Your task to perform on an android device: Open Google Maps and go to "Timeline" Image 0: 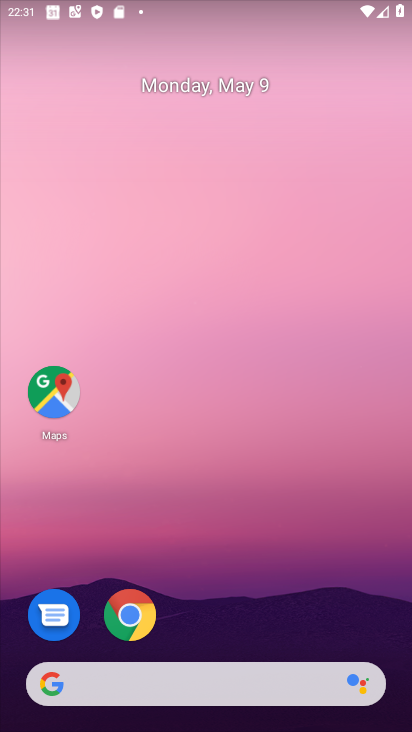
Step 0: click (51, 392)
Your task to perform on an android device: Open Google Maps and go to "Timeline" Image 1: 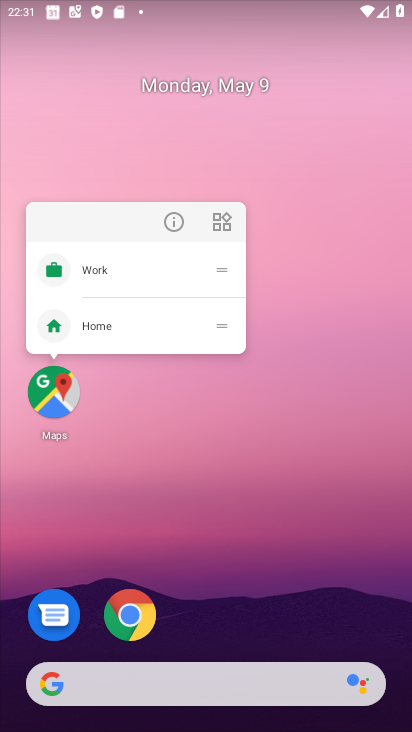
Step 1: click (54, 393)
Your task to perform on an android device: Open Google Maps and go to "Timeline" Image 2: 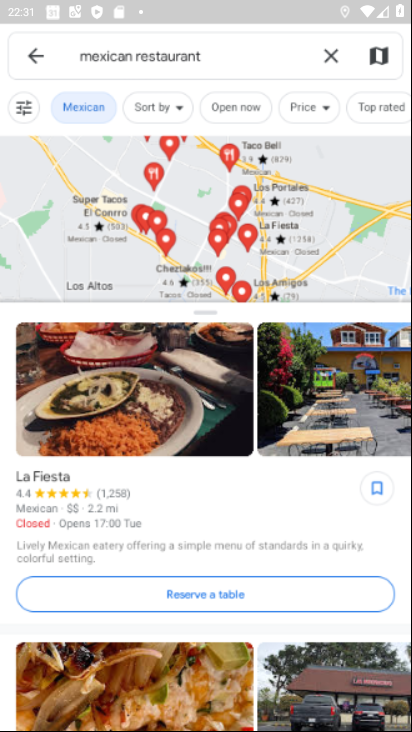
Step 2: click (40, 57)
Your task to perform on an android device: Open Google Maps and go to "Timeline" Image 3: 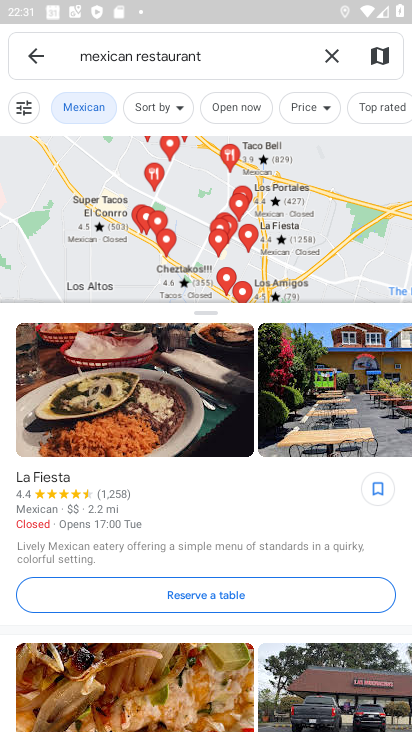
Step 3: click (331, 60)
Your task to perform on an android device: Open Google Maps and go to "Timeline" Image 4: 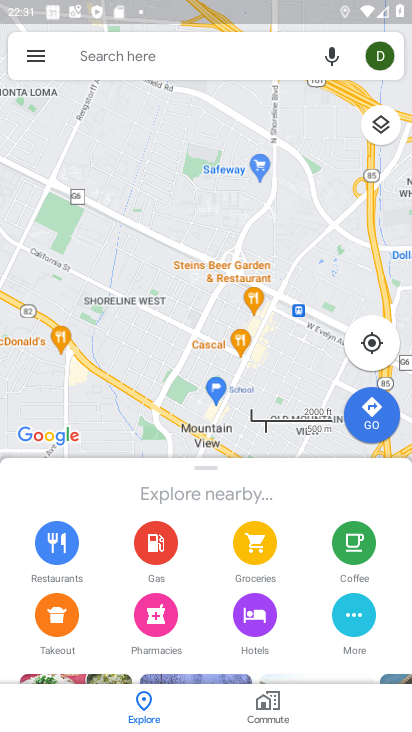
Step 4: click (39, 57)
Your task to perform on an android device: Open Google Maps and go to "Timeline" Image 5: 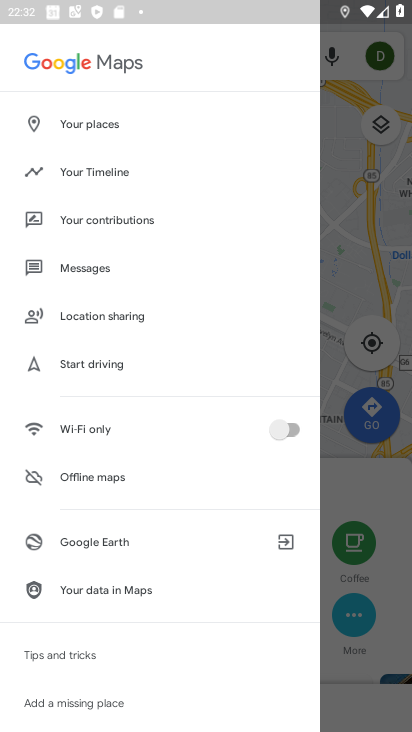
Step 5: click (102, 174)
Your task to perform on an android device: Open Google Maps and go to "Timeline" Image 6: 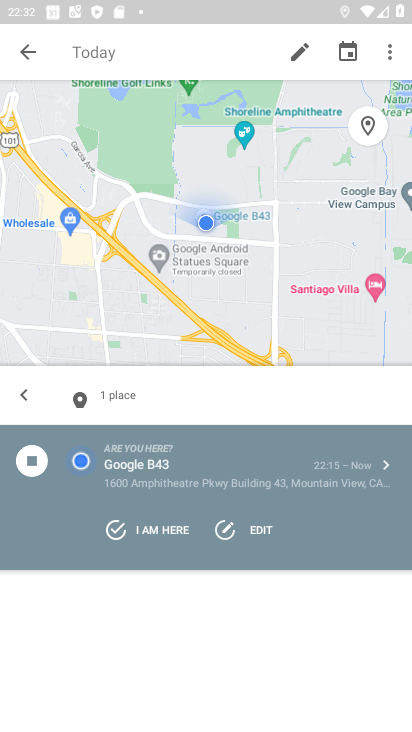
Step 6: task complete